Your task to perform on an android device: Open the map Image 0: 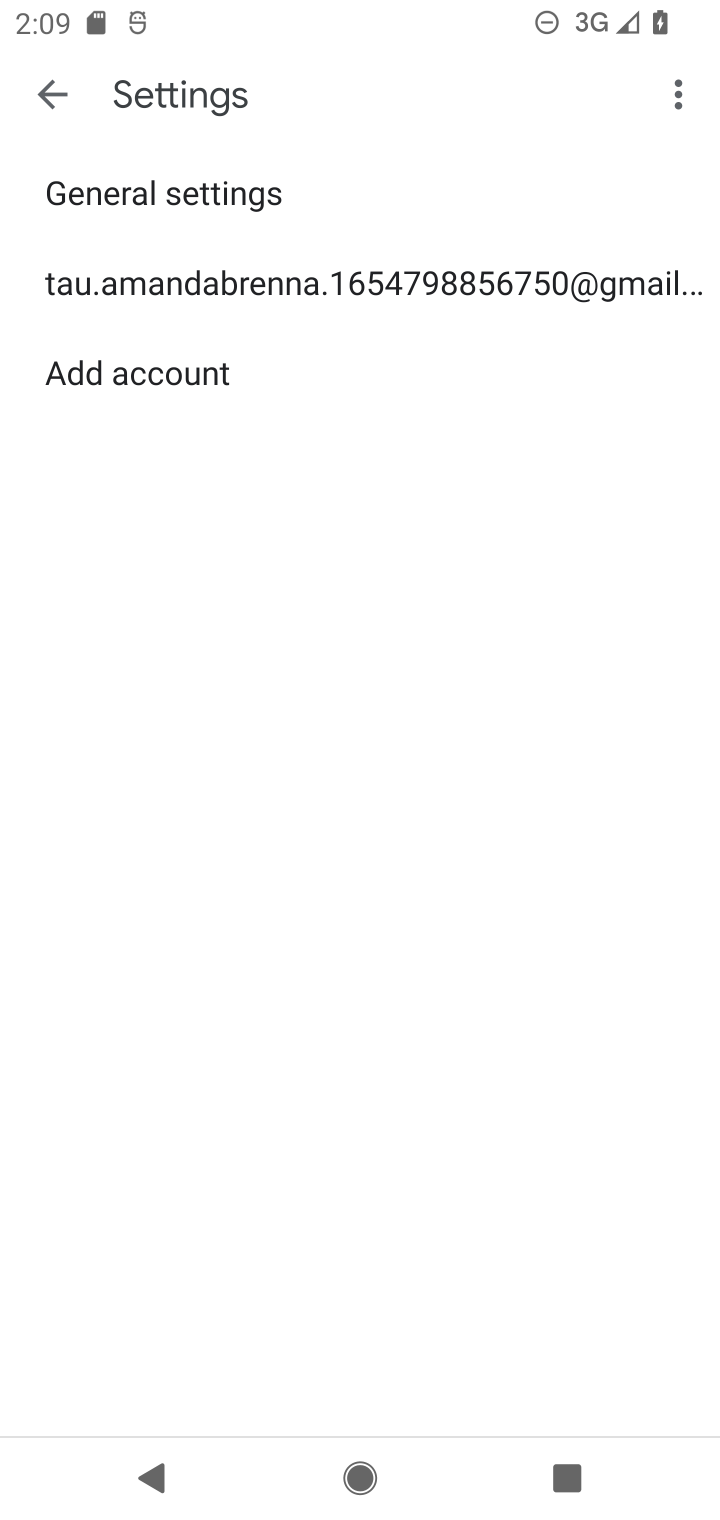
Step 0: press home button
Your task to perform on an android device: Open the map Image 1: 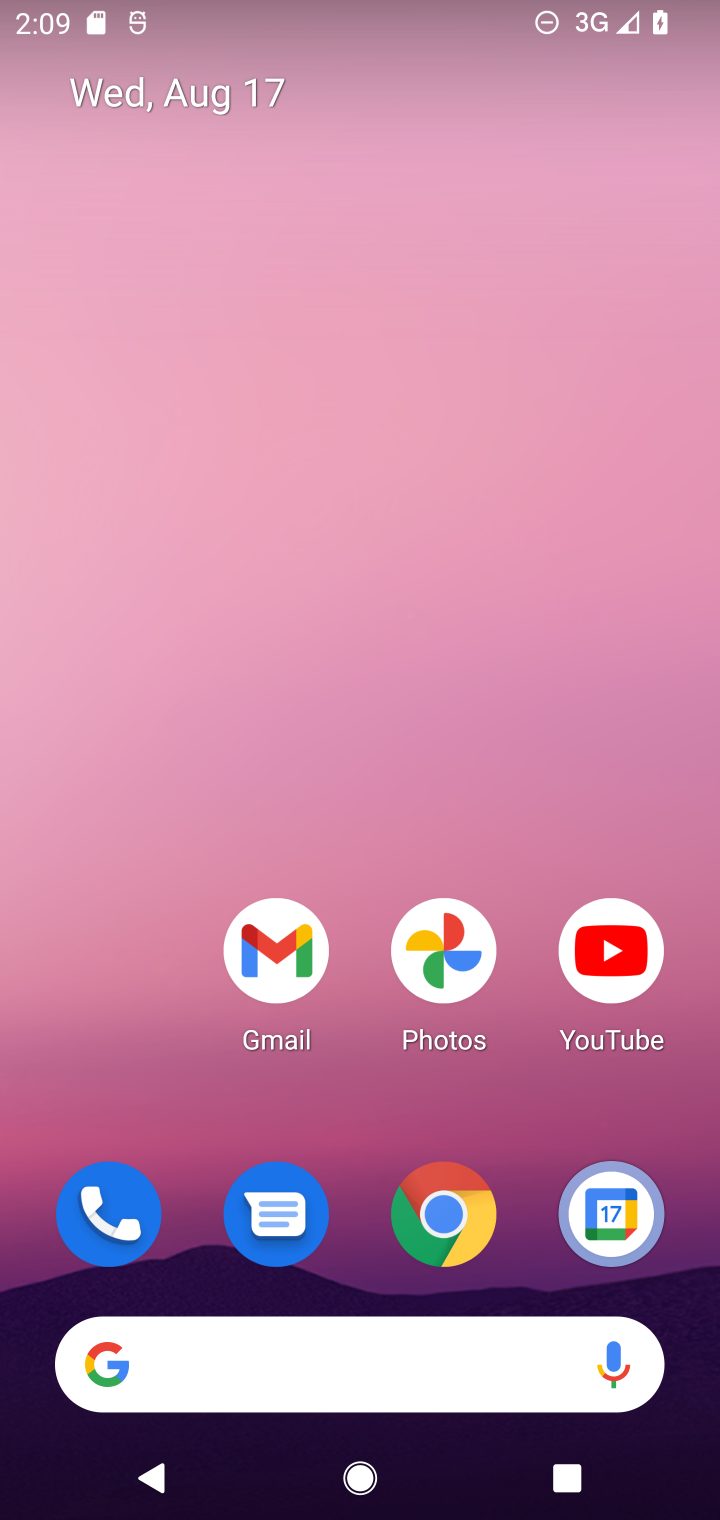
Step 1: drag from (354, 1271) to (265, 291)
Your task to perform on an android device: Open the map Image 2: 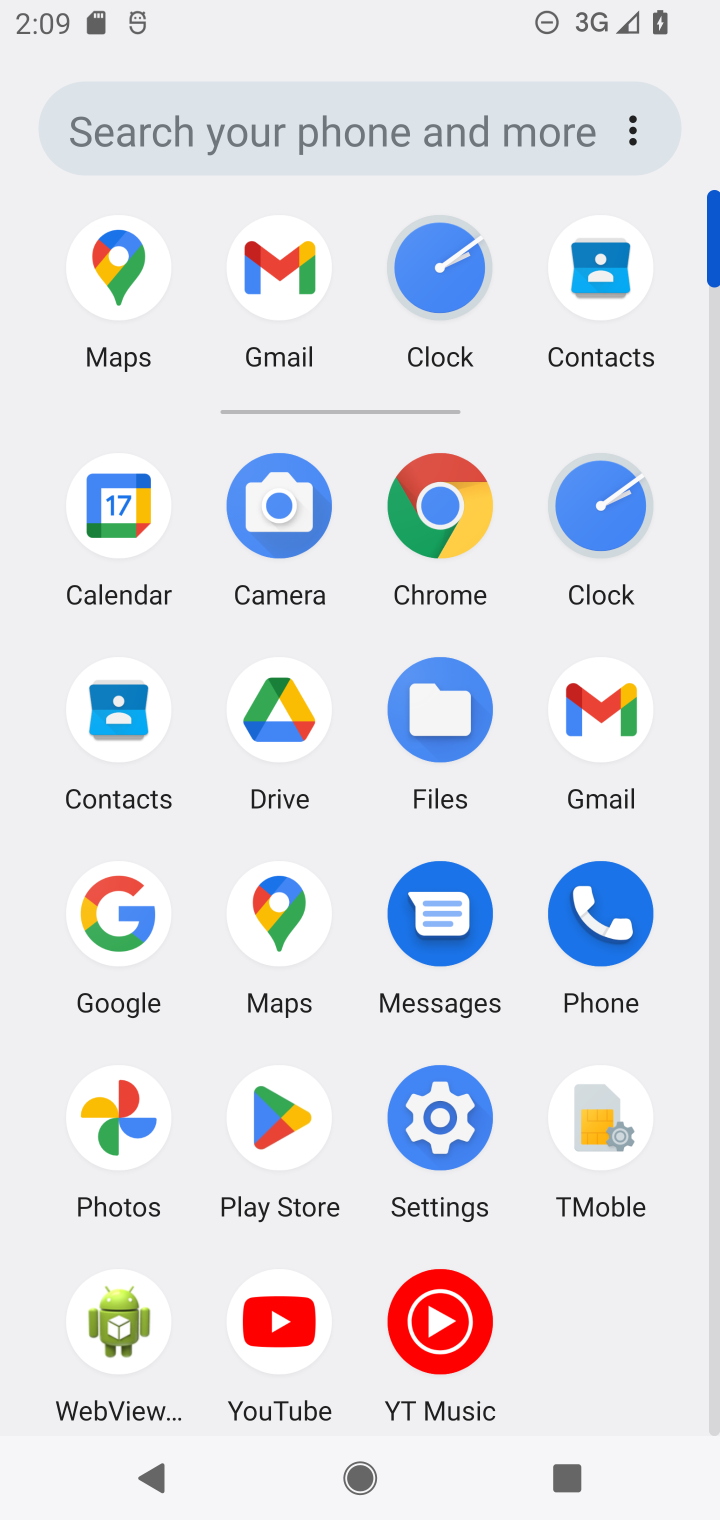
Step 2: click (126, 258)
Your task to perform on an android device: Open the map Image 3: 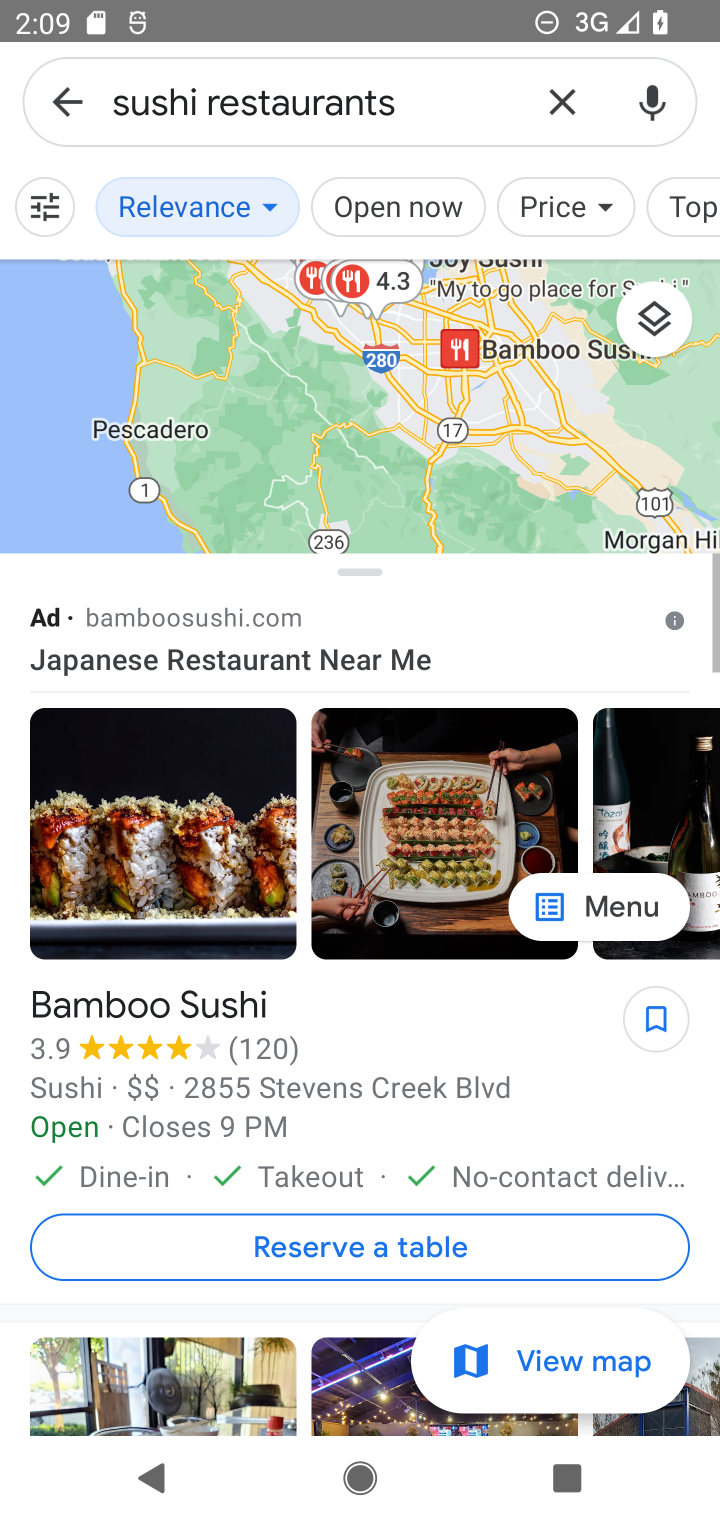
Step 3: click (65, 102)
Your task to perform on an android device: Open the map Image 4: 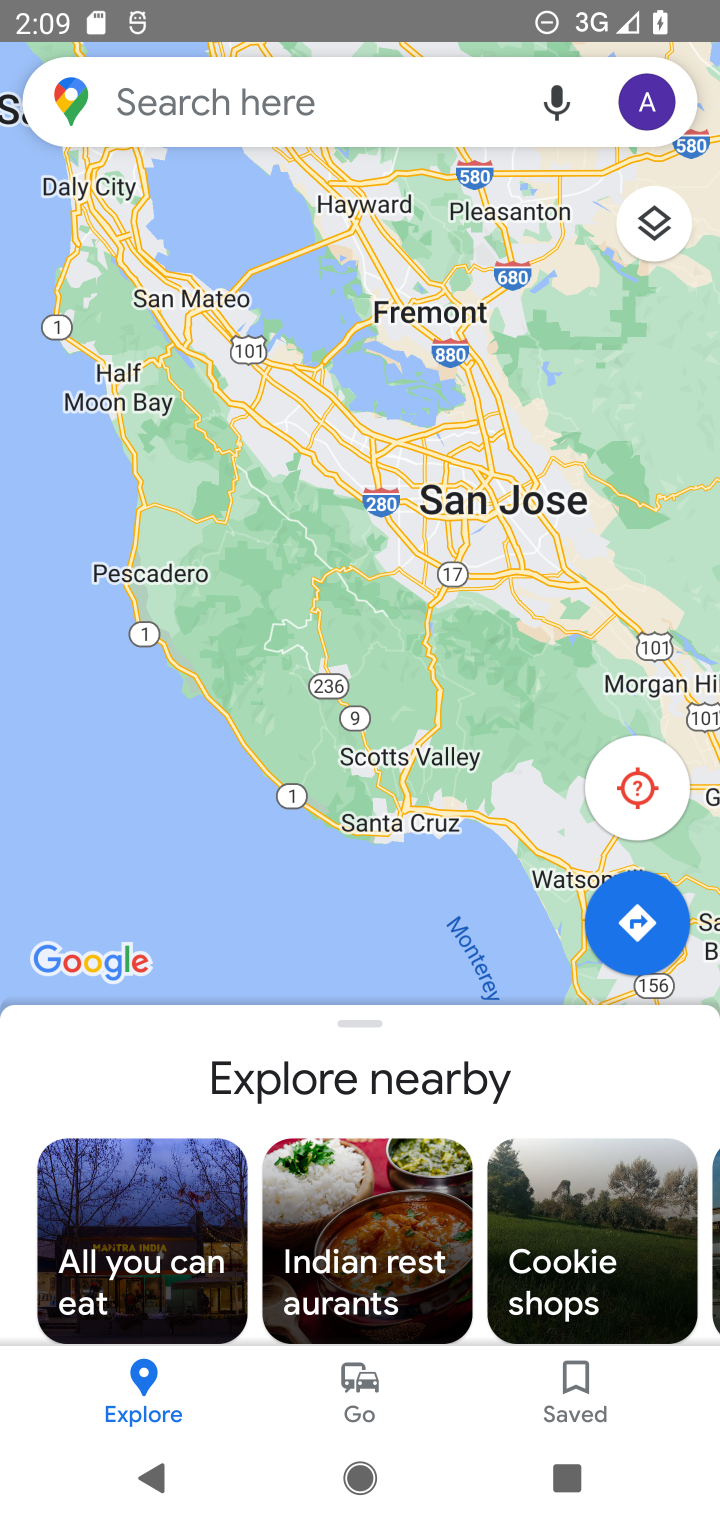
Step 4: task complete